Your task to perform on an android device: turn on showing notifications on the lock screen Image 0: 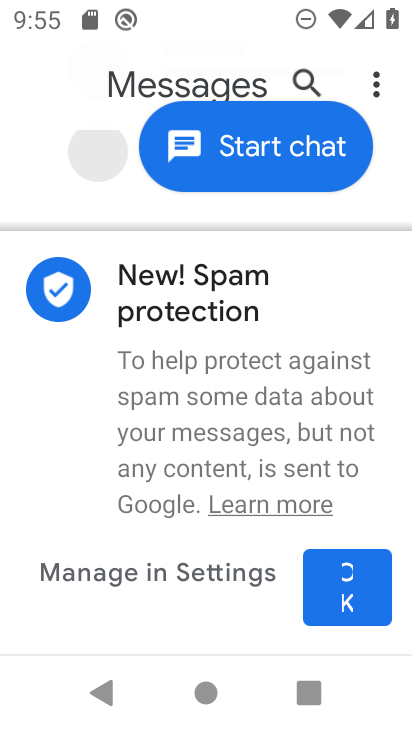
Step 0: press home button
Your task to perform on an android device: turn on showing notifications on the lock screen Image 1: 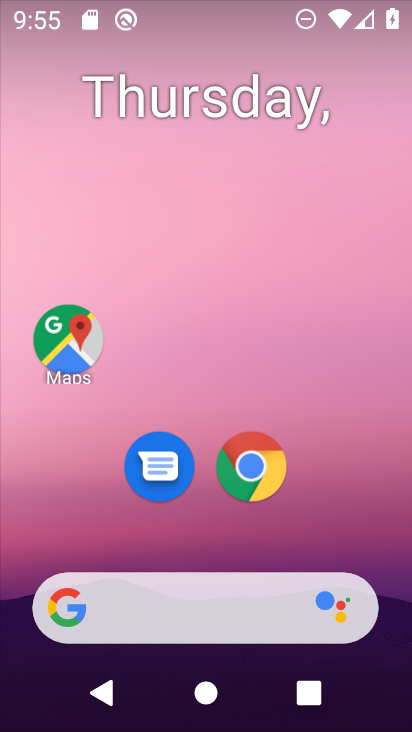
Step 1: drag from (325, 559) to (256, 166)
Your task to perform on an android device: turn on showing notifications on the lock screen Image 2: 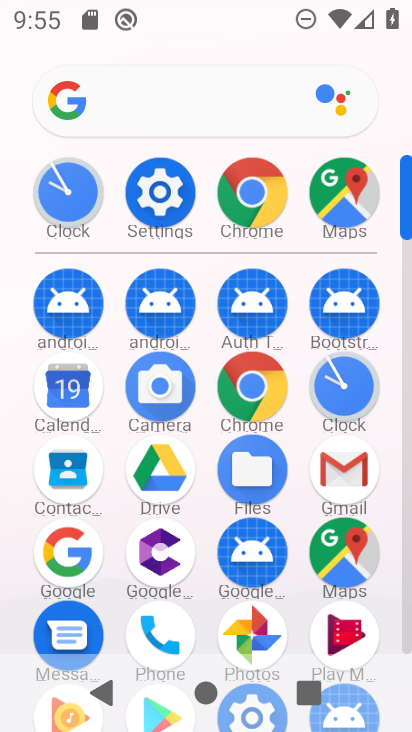
Step 2: click (173, 188)
Your task to perform on an android device: turn on showing notifications on the lock screen Image 3: 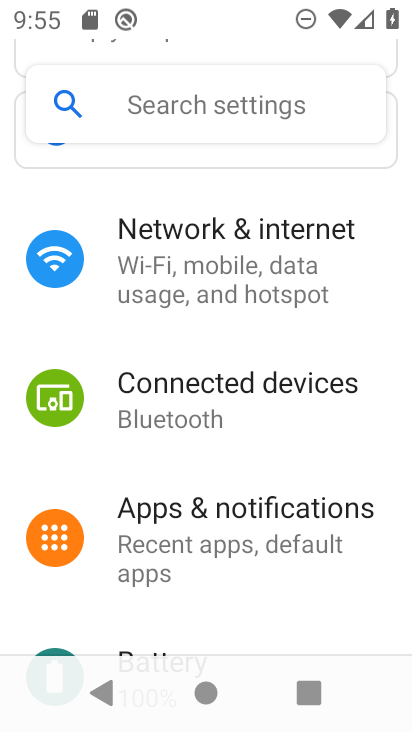
Step 3: click (247, 551)
Your task to perform on an android device: turn on showing notifications on the lock screen Image 4: 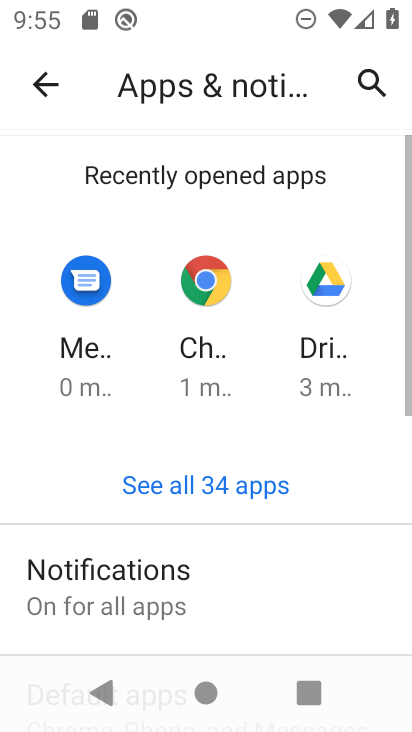
Step 4: drag from (240, 583) to (242, 243)
Your task to perform on an android device: turn on showing notifications on the lock screen Image 5: 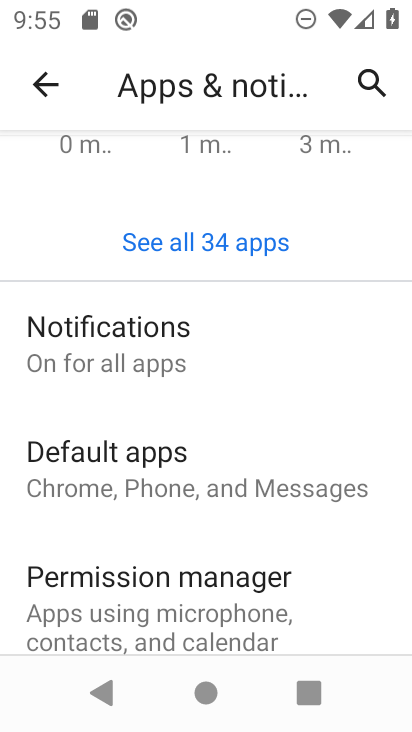
Step 5: click (175, 358)
Your task to perform on an android device: turn on showing notifications on the lock screen Image 6: 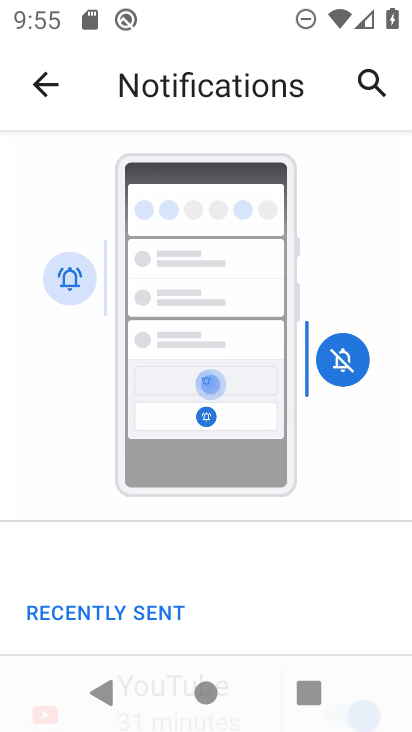
Step 6: drag from (236, 564) to (250, 85)
Your task to perform on an android device: turn on showing notifications on the lock screen Image 7: 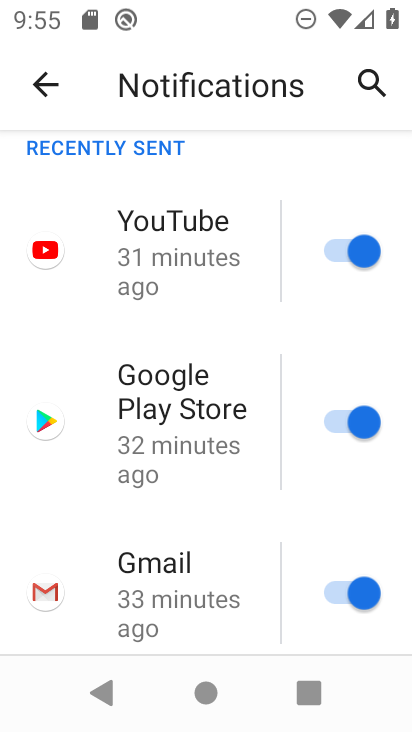
Step 7: drag from (279, 525) to (320, 94)
Your task to perform on an android device: turn on showing notifications on the lock screen Image 8: 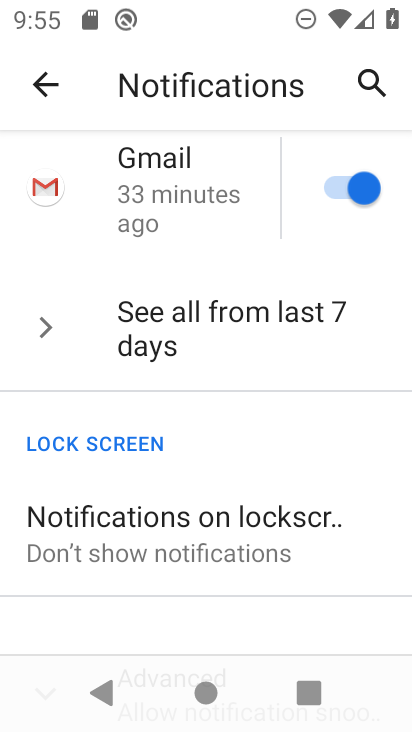
Step 8: click (296, 539)
Your task to perform on an android device: turn on showing notifications on the lock screen Image 9: 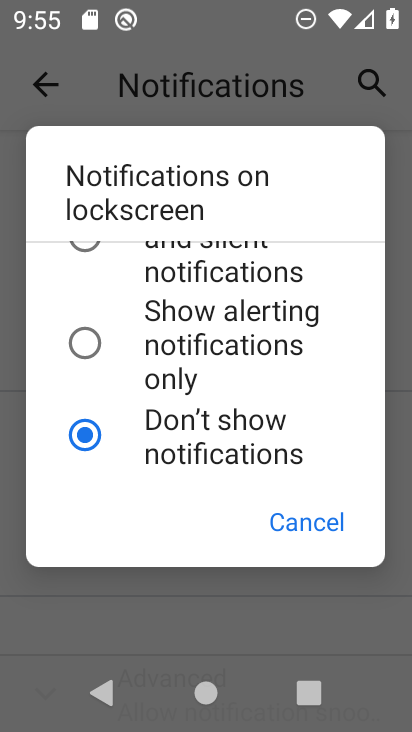
Step 9: click (90, 253)
Your task to perform on an android device: turn on showing notifications on the lock screen Image 10: 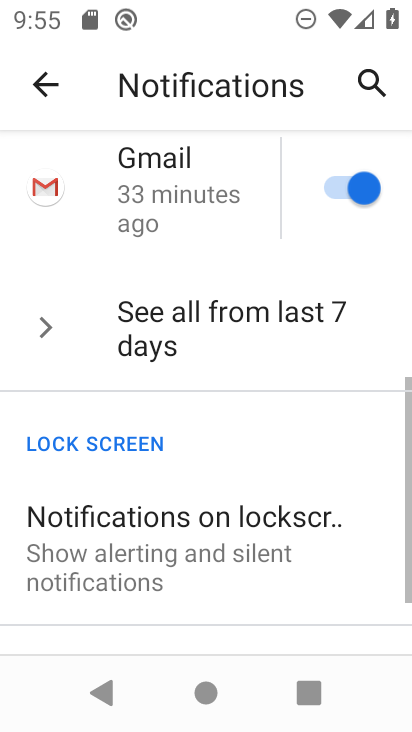
Step 10: task complete